Your task to perform on an android device: create a new album in the google photos Image 0: 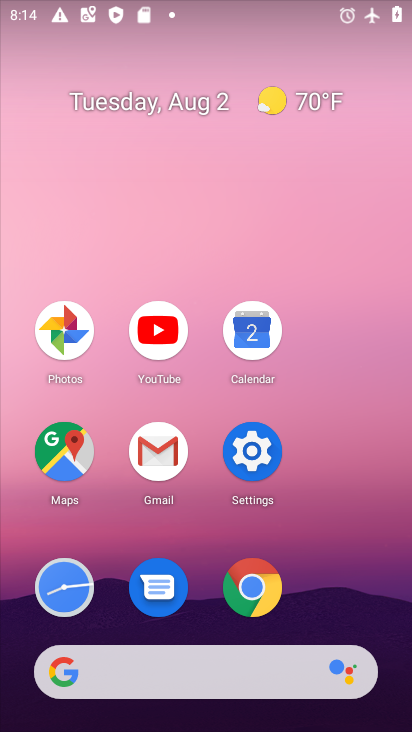
Step 0: click (65, 331)
Your task to perform on an android device: create a new album in the google photos Image 1: 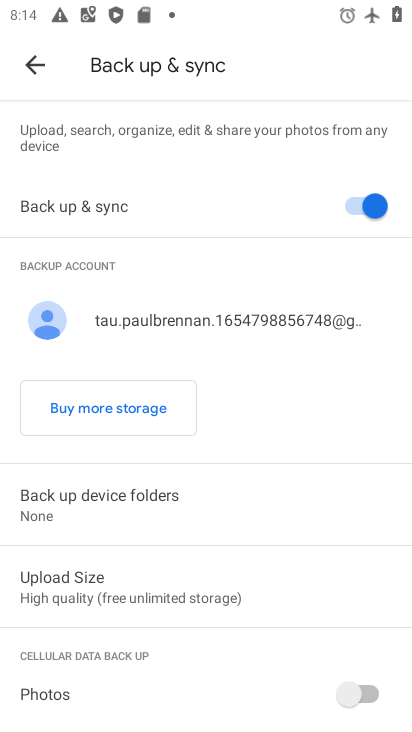
Step 1: click (34, 64)
Your task to perform on an android device: create a new album in the google photos Image 2: 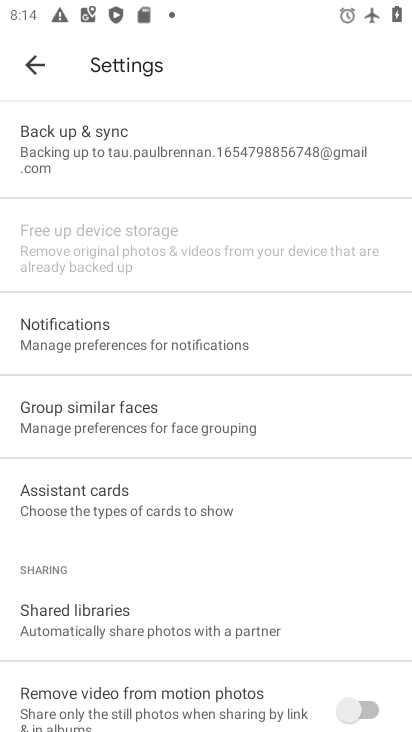
Step 2: click (34, 64)
Your task to perform on an android device: create a new album in the google photos Image 3: 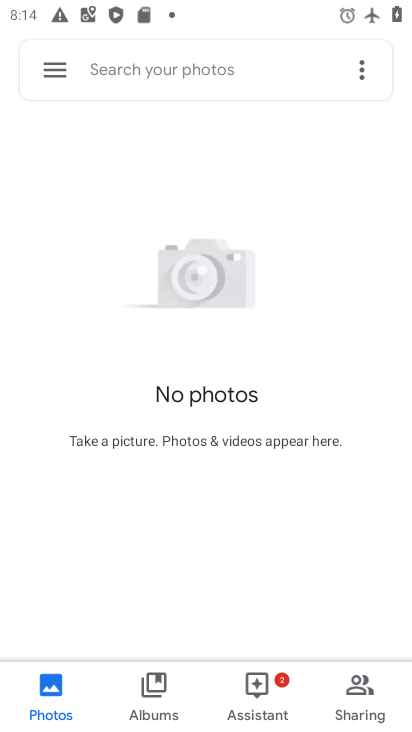
Step 3: click (146, 690)
Your task to perform on an android device: create a new album in the google photos Image 4: 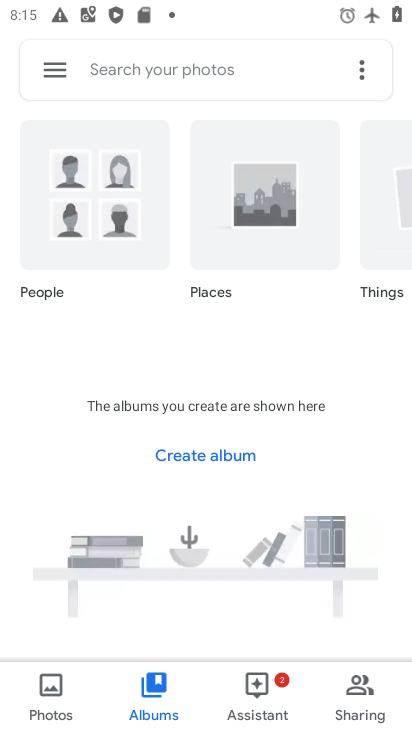
Step 4: click (218, 452)
Your task to perform on an android device: create a new album in the google photos Image 5: 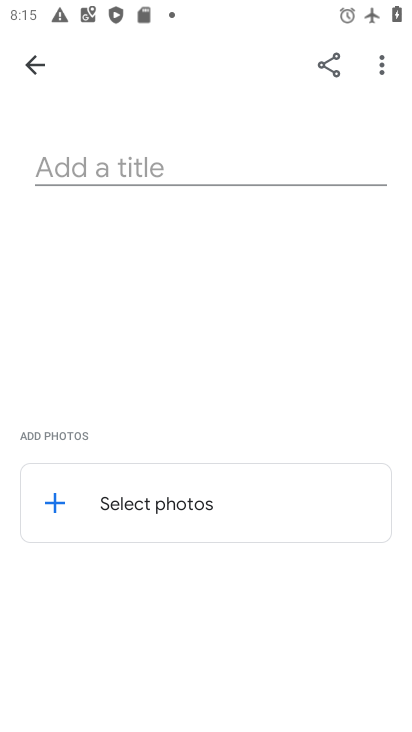
Step 5: click (181, 160)
Your task to perform on an android device: create a new album in the google photos Image 6: 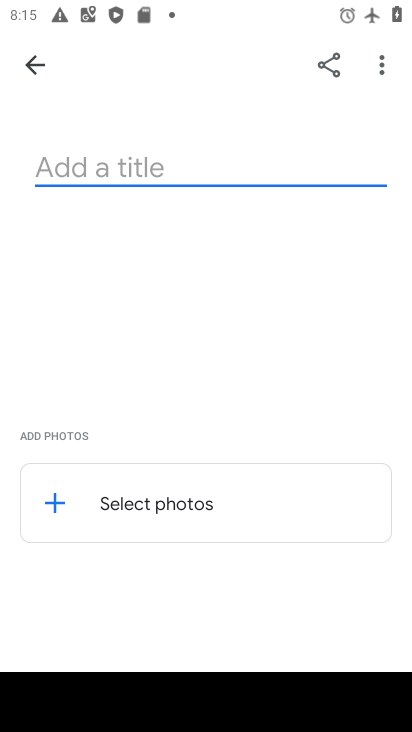
Step 6: type "h"
Your task to perform on an android device: create a new album in the google photos Image 7: 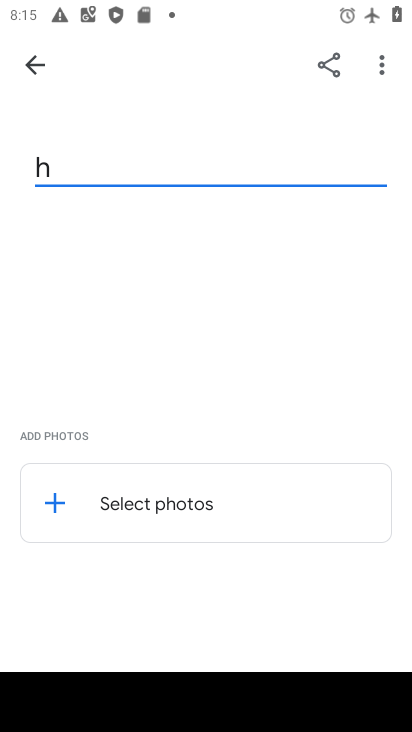
Step 7: click (30, 59)
Your task to perform on an android device: create a new album in the google photos Image 8: 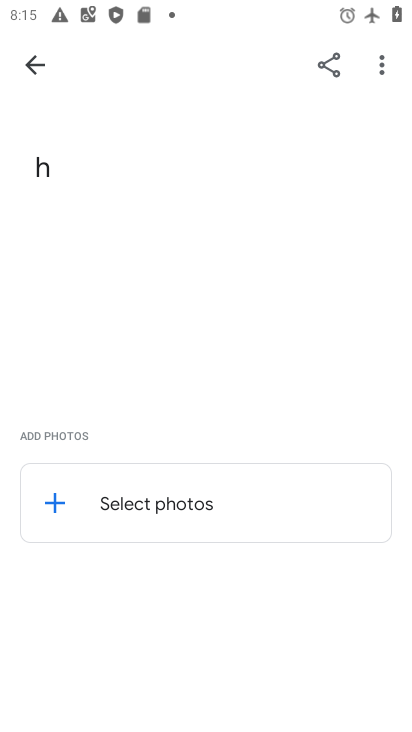
Step 8: task complete